Your task to perform on an android device: install app "Paramount+ | Peak Streaming" Image 0: 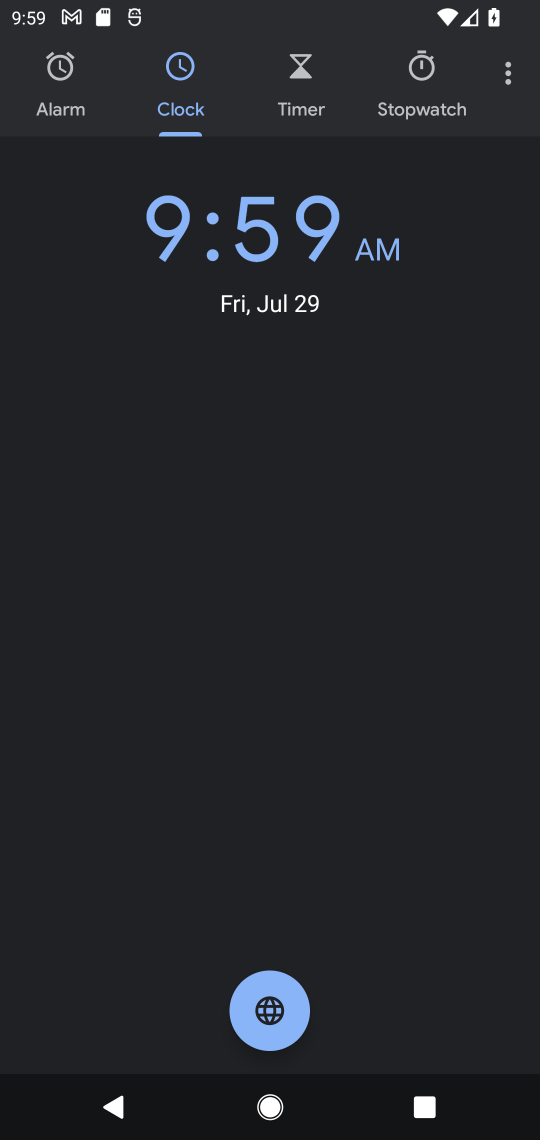
Step 0: press home button
Your task to perform on an android device: install app "Paramount+ | Peak Streaming" Image 1: 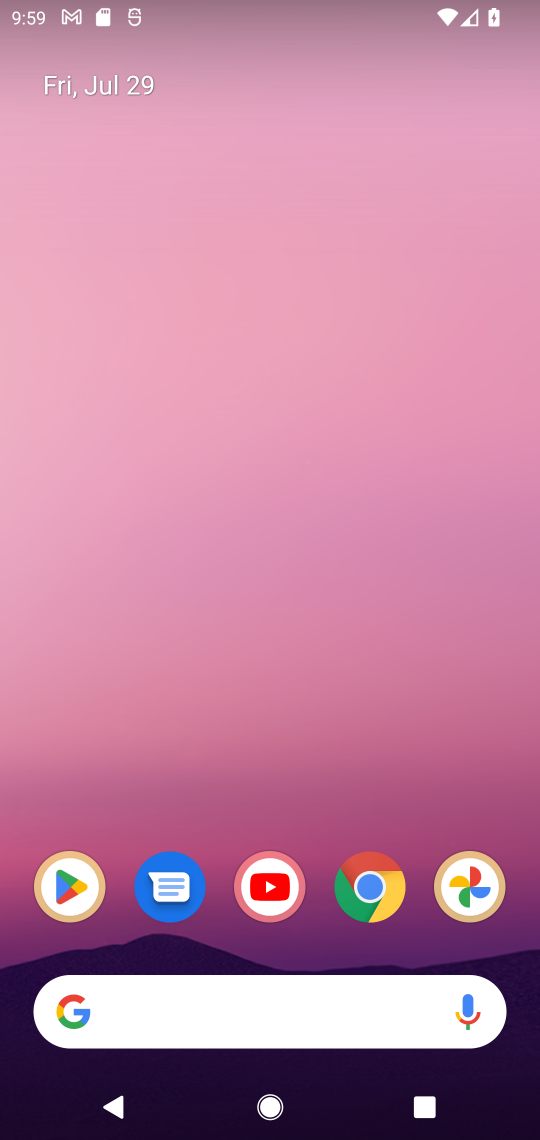
Step 1: click (92, 876)
Your task to perform on an android device: install app "Paramount+ | Peak Streaming" Image 2: 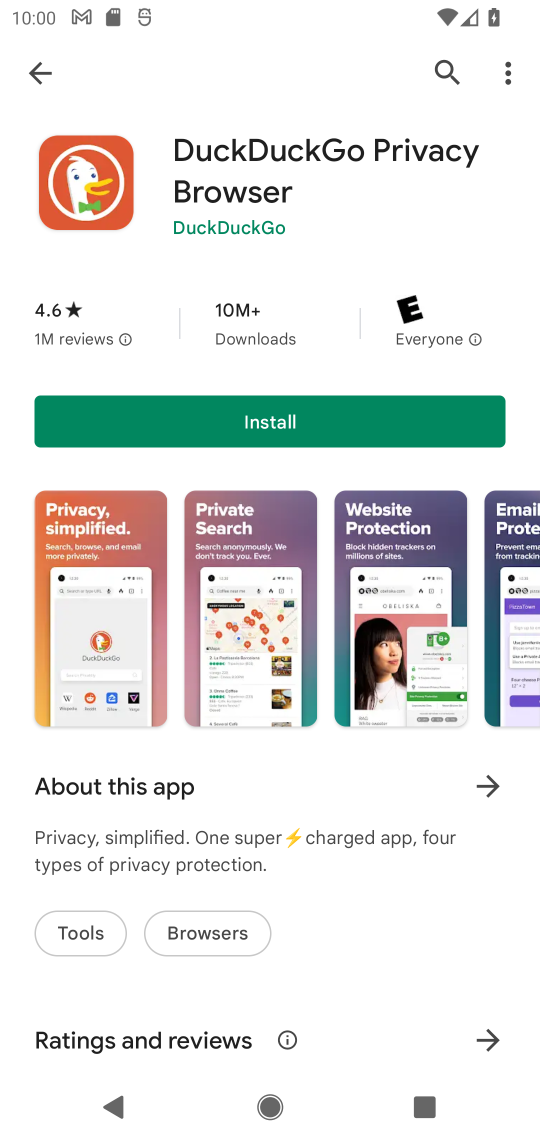
Step 2: click (446, 47)
Your task to perform on an android device: install app "Paramount+ | Peak Streaming" Image 3: 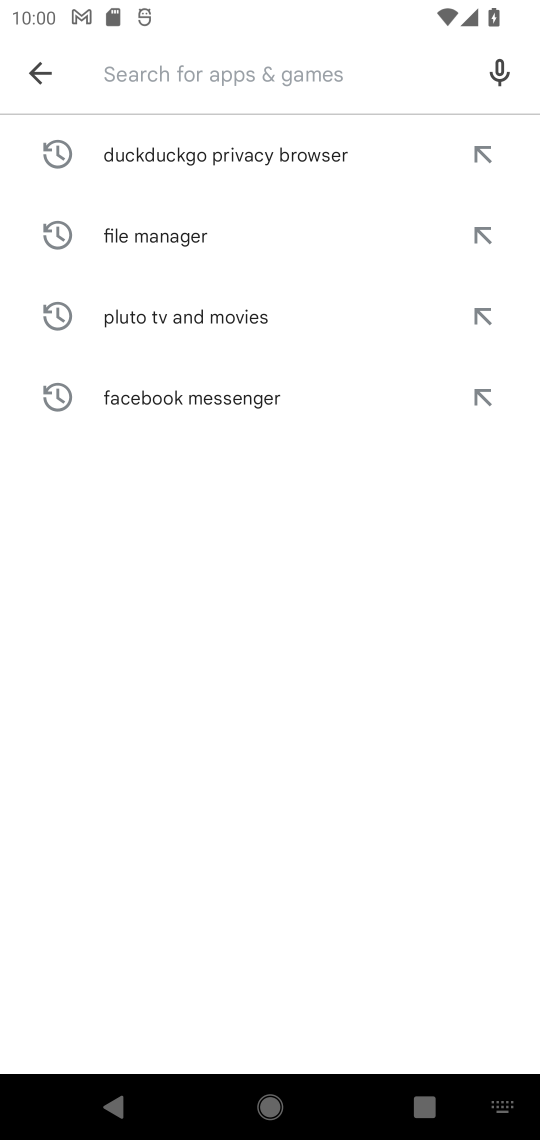
Step 3: type "paramount+ peak streaming"
Your task to perform on an android device: install app "Paramount+ | Peak Streaming" Image 4: 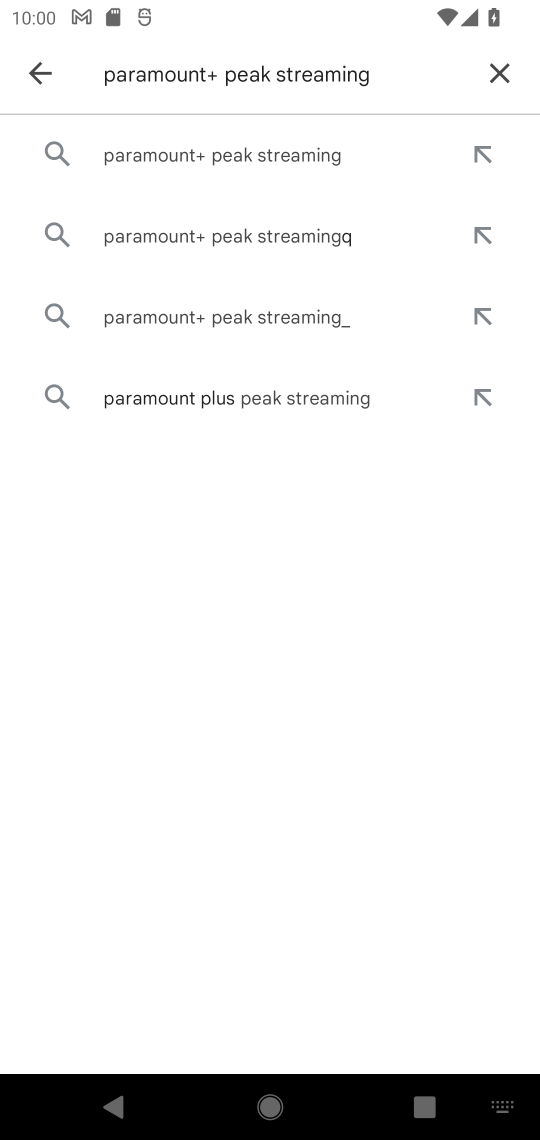
Step 4: click (401, 140)
Your task to perform on an android device: install app "Paramount+ | Peak Streaming" Image 5: 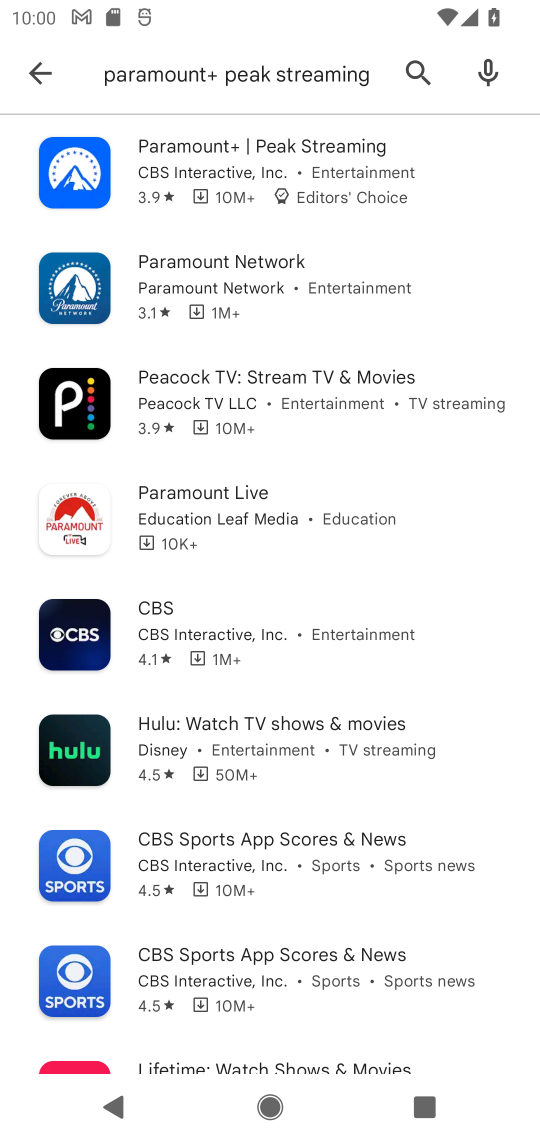
Step 5: click (313, 169)
Your task to perform on an android device: install app "Paramount+ | Peak Streaming" Image 6: 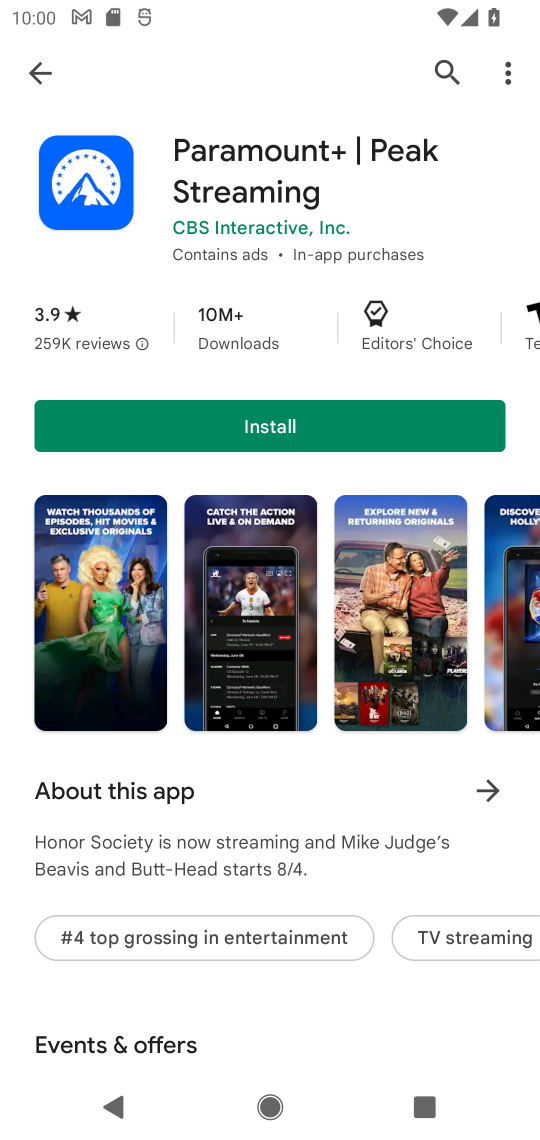
Step 6: click (279, 430)
Your task to perform on an android device: install app "Paramount+ | Peak Streaming" Image 7: 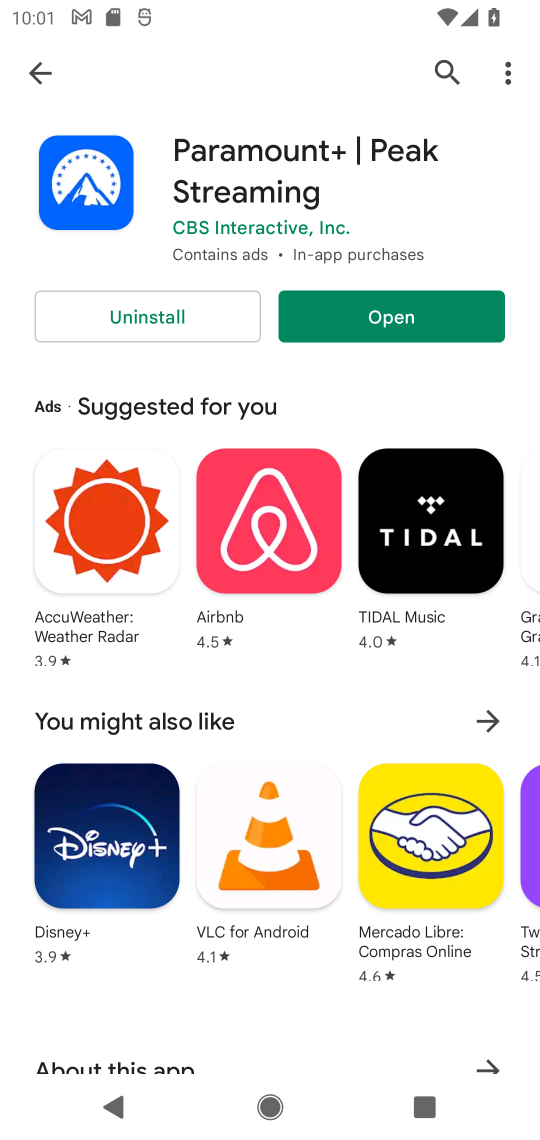
Step 7: task complete